Your task to perform on an android device: Show me the best rated 42 inch TV on Walmart. Image 0: 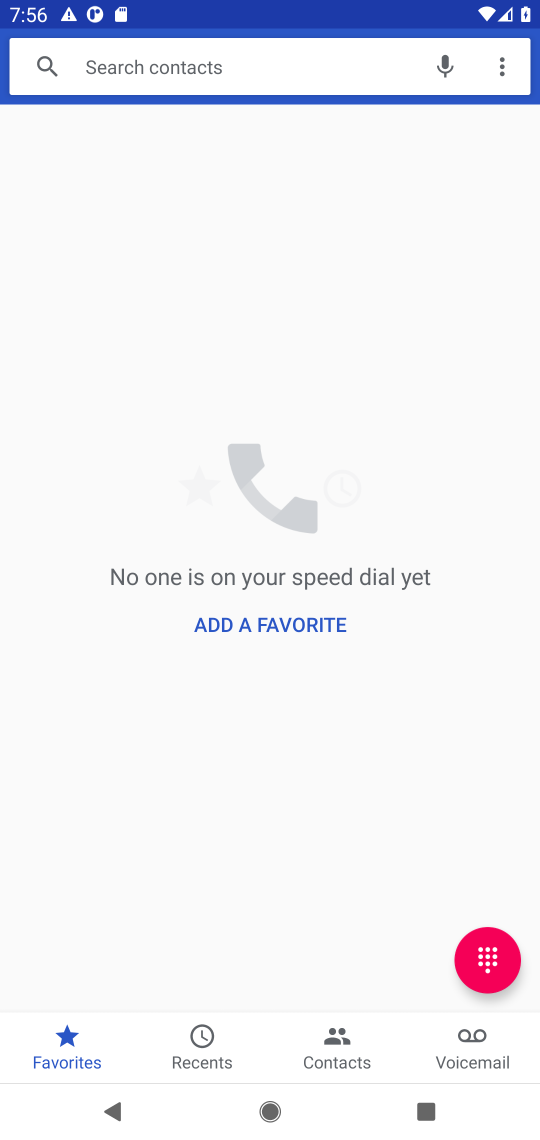
Step 0: click (341, 1022)
Your task to perform on an android device: Show me the best rated 42 inch TV on Walmart. Image 1: 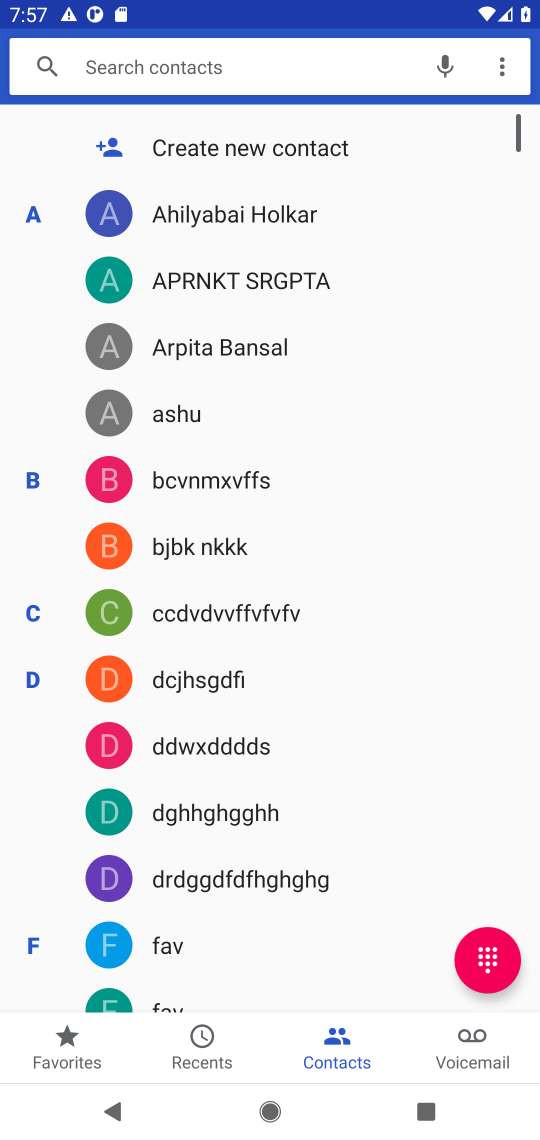
Step 1: click (294, 194)
Your task to perform on an android device: Show me the best rated 42 inch TV on Walmart. Image 2: 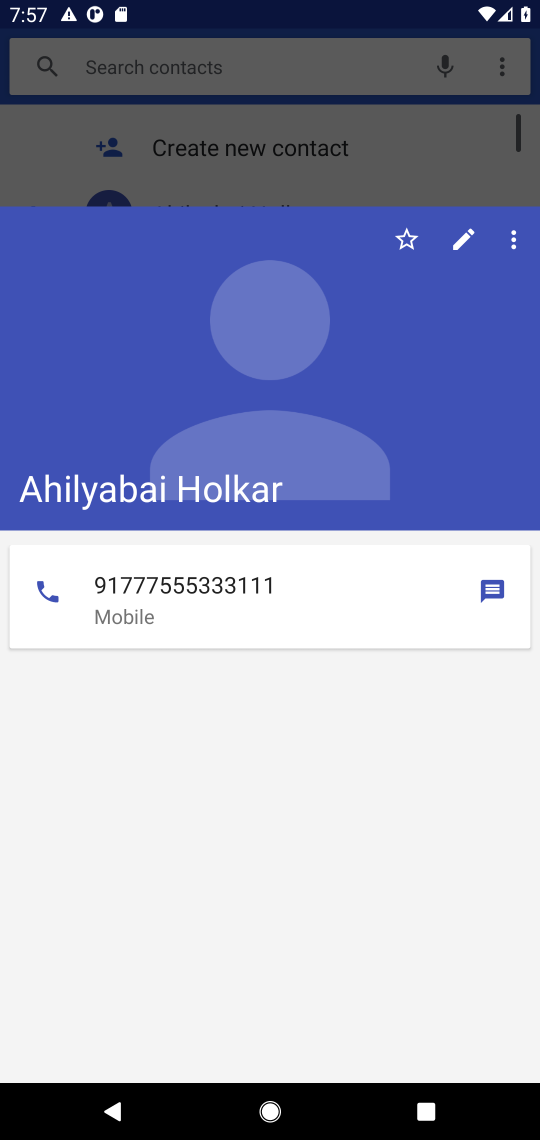
Step 2: task complete